Your task to perform on an android device: turn off data saver in the chrome app Image 0: 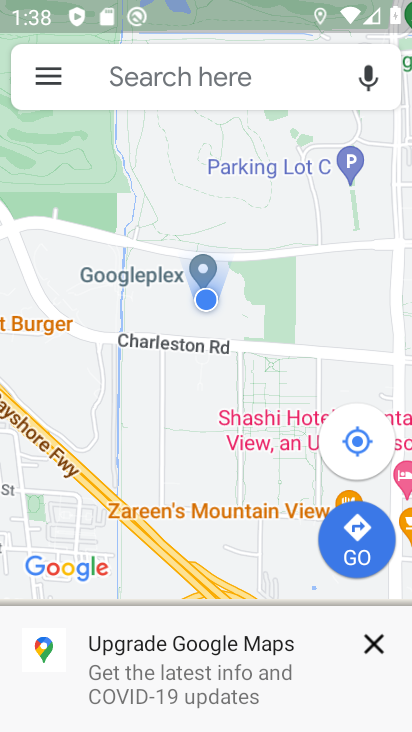
Step 0: press home button
Your task to perform on an android device: turn off data saver in the chrome app Image 1: 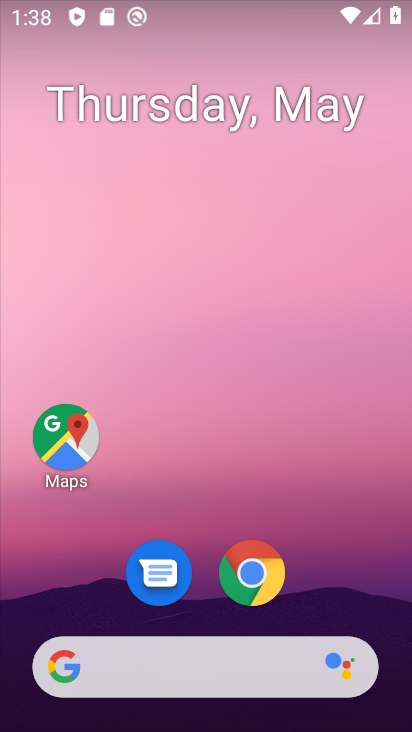
Step 1: drag from (334, 621) to (273, 214)
Your task to perform on an android device: turn off data saver in the chrome app Image 2: 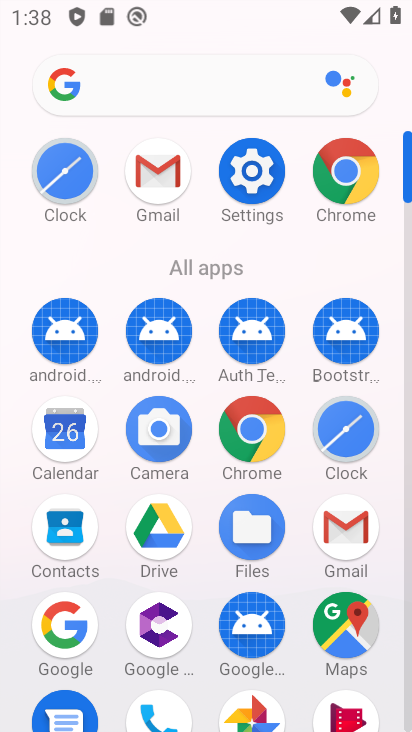
Step 2: click (353, 172)
Your task to perform on an android device: turn off data saver in the chrome app Image 3: 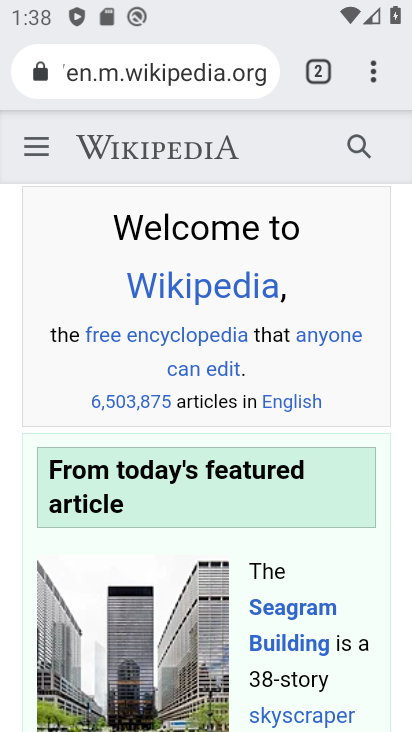
Step 3: click (372, 86)
Your task to perform on an android device: turn off data saver in the chrome app Image 4: 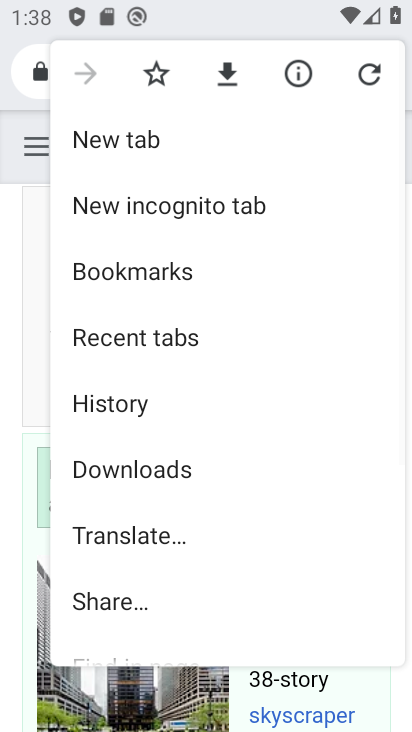
Step 4: drag from (180, 597) to (173, 202)
Your task to perform on an android device: turn off data saver in the chrome app Image 5: 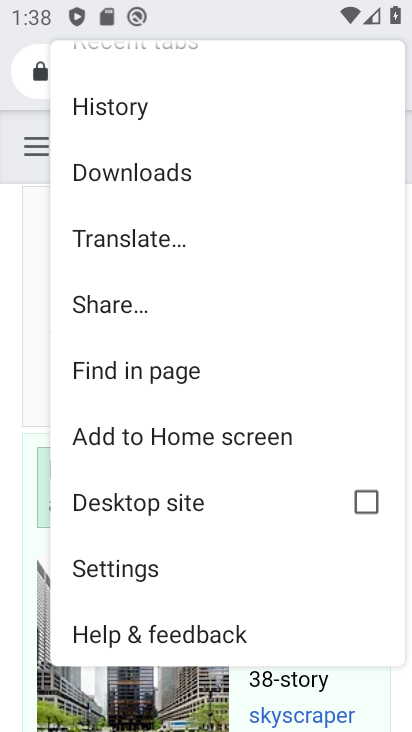
Step 5: click (164, 569)
Your task to perform on an android device: turn off data saver in the chrome app Image 6: 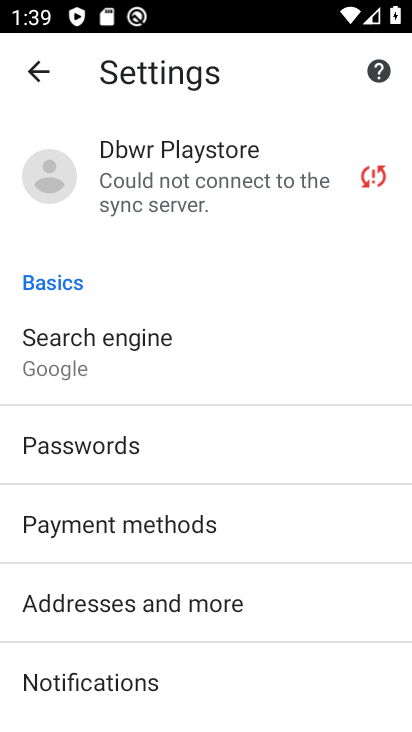
Step 6: drag from (193, 671) to (148, 298)
Your task to perform on an android device: turn off data saver in the chrome app Image 7: 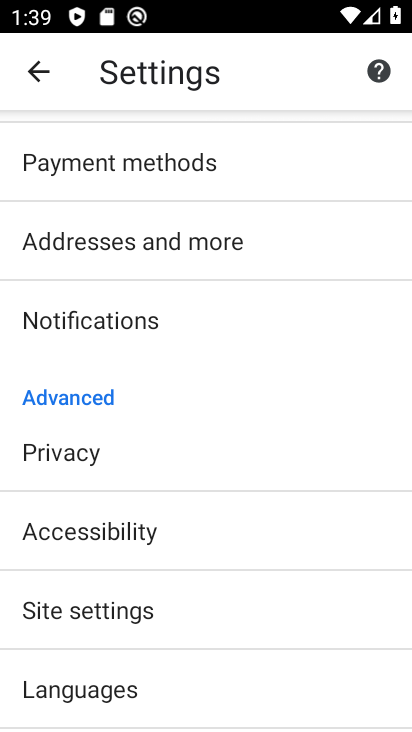
Step 7: drag from (189, 635) to (143, 355)
Your task to perform on an android device: turn off data saver in the chrome app Image 8: 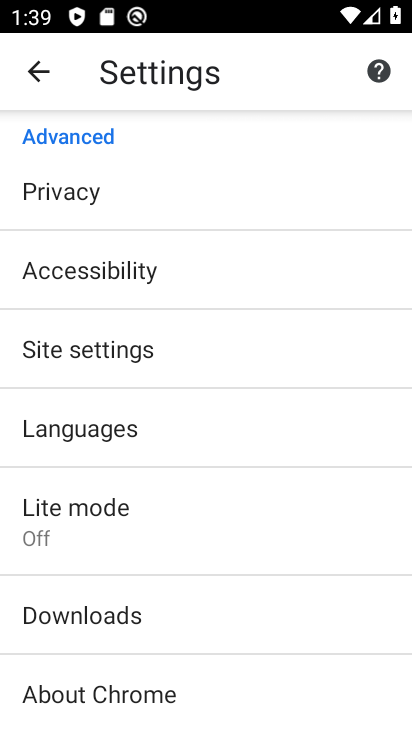
Step 8: click (221, 521)
Your task to perform on an android device: turn off data saver in the chrome app Image 9: 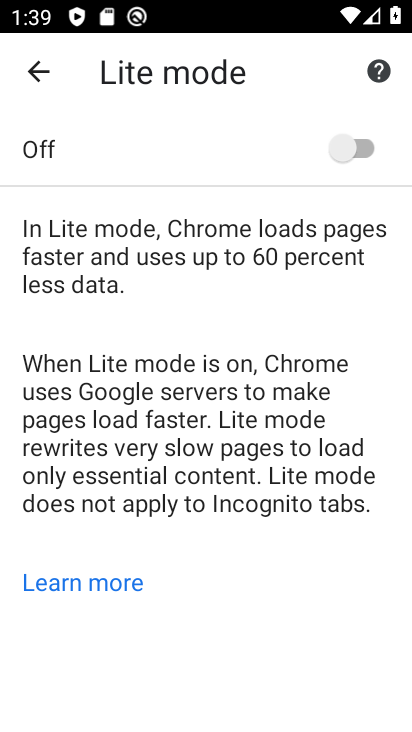
Step 9: task complete